Your task to perform on an android device: all mails in gmail Image 0: 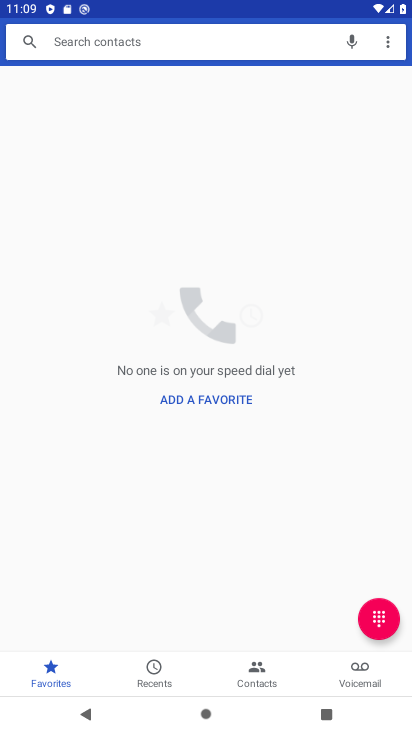
Step 0: press home button
Your task to perform on an android device: all mails in gmail Image 1: 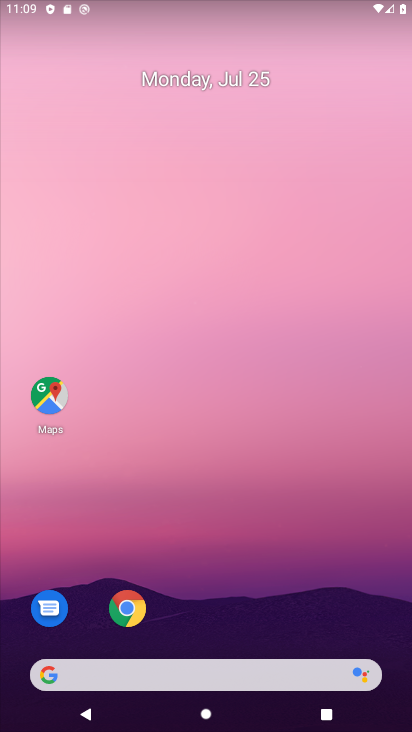
Step 1: drag from (209, 666) to (185, 54)
Your task to perform on an android device: all mails in gmail Image 2: 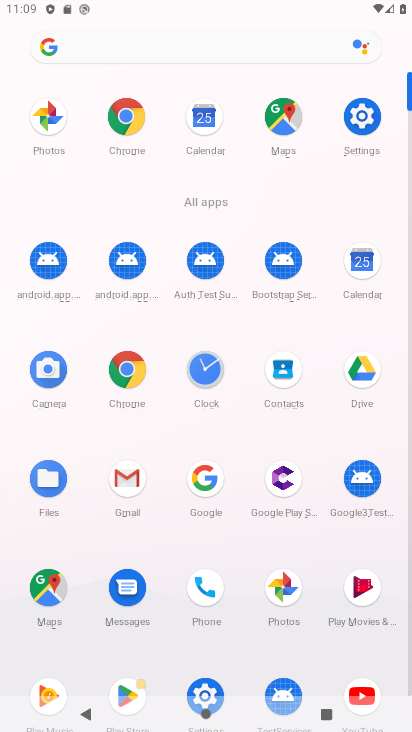
Step 2: click (134, 483)
Your task to perform on an android device: all mails in gmail Image 3: 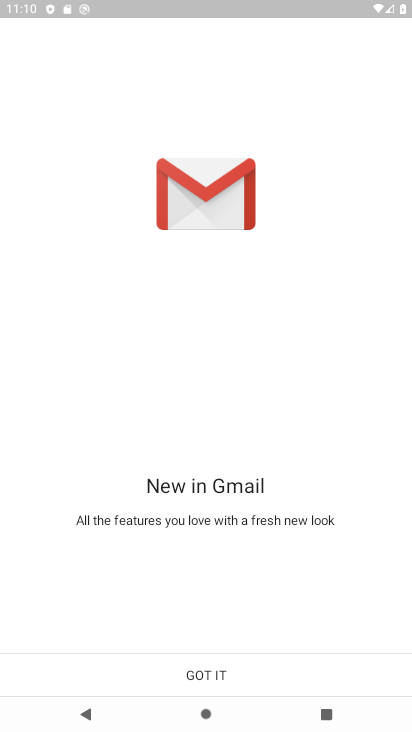
Step 3: click (195, 659)
Your task to perform on an android device: all mails in gmail Image 4: 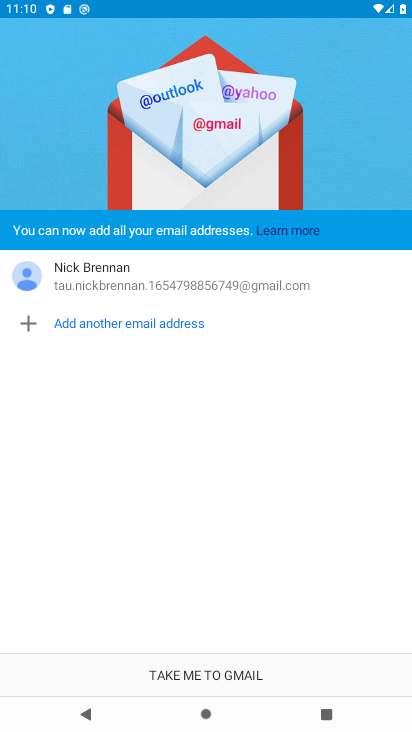
Step 4: click (197, 676)
Your task to perform on an android device: all mails in gmail Image 5: 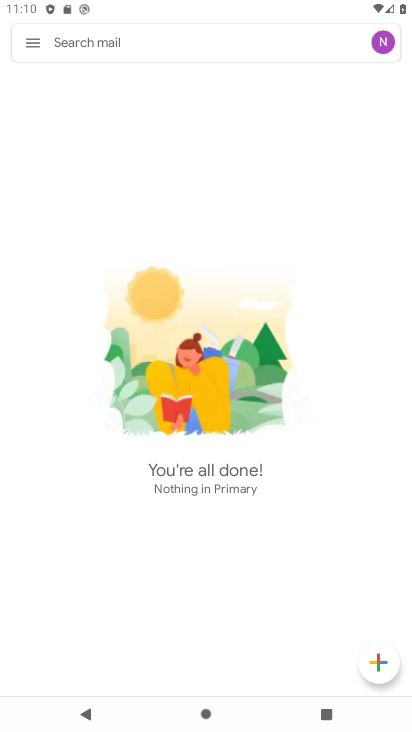
Step 5: click (39, 44)
Your task to perform on an android device: all mails in gmail Image 6: 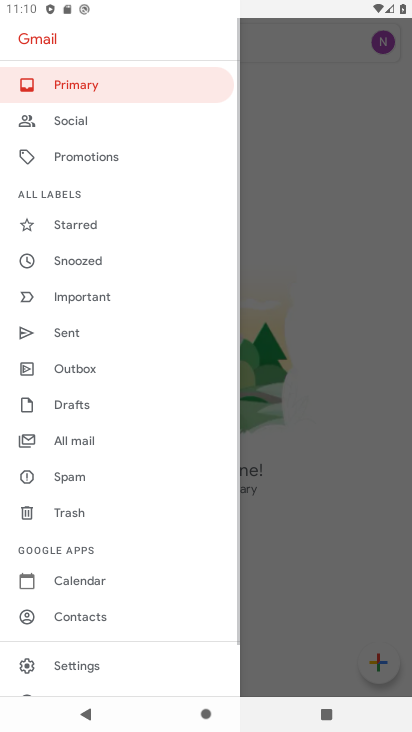
Step 6: click (100, 440)
Your task to perform on an android device: all mails in gmail Image 7: 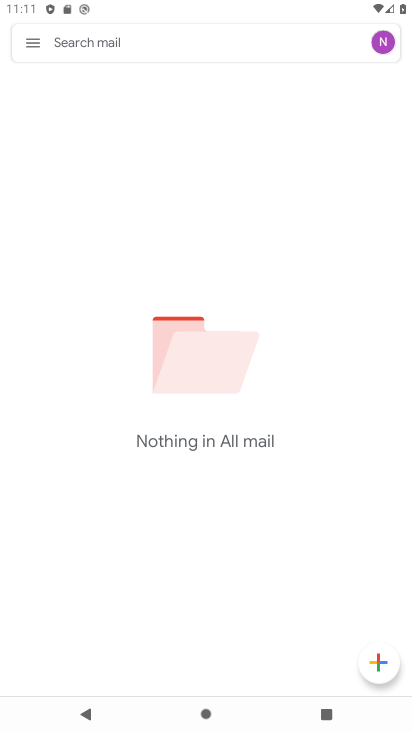
Step 7: task complete